Your task to perform on an android device: Go to privacy settings Image 0: 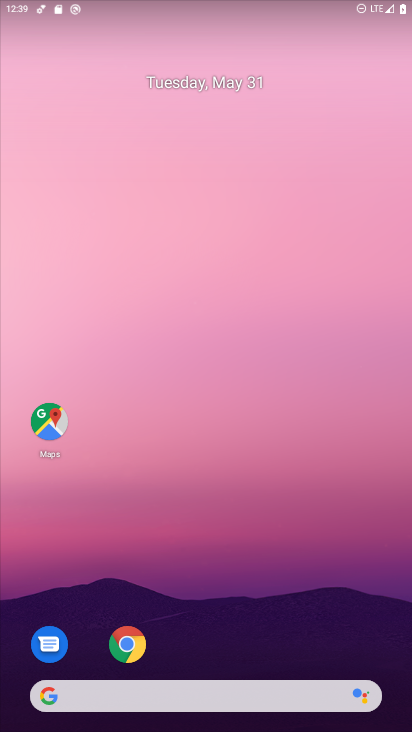
Step 0: drag from (161, 678) to (251, 155)
Your task to perform on an android device: Go to privacy settings Image 1: 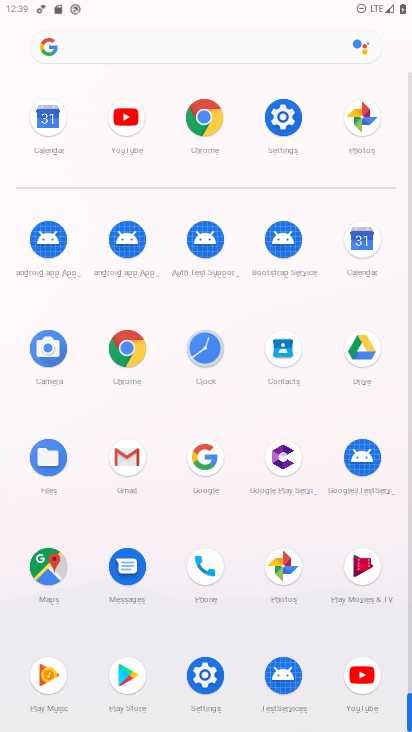
Step 1: click (270, 114)
Your task to perform on an android device: Go to privacy settings Image 2: 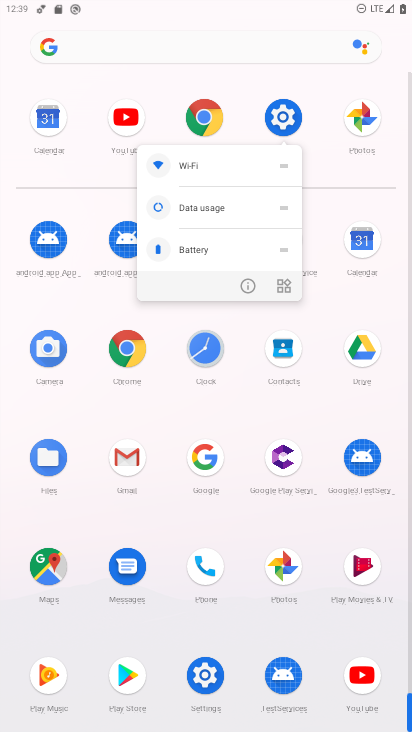
Step 2: click (242, 285)
Your task to perform on an android device: Go to privacy settings Image 3: 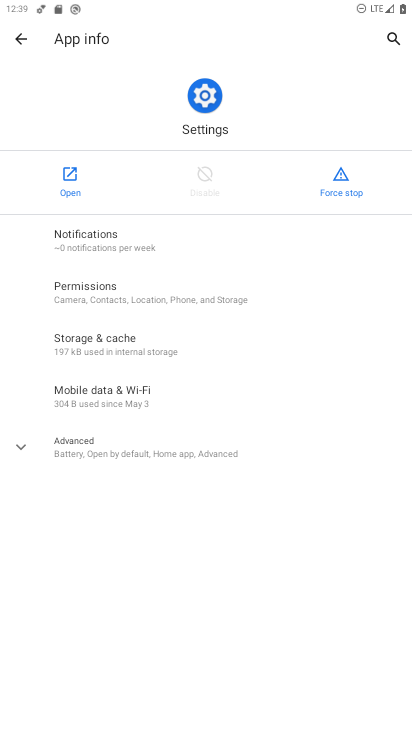
Step 3: click (50, 176)
Your task to perform on an android device: Go to privacy settings Image 4: 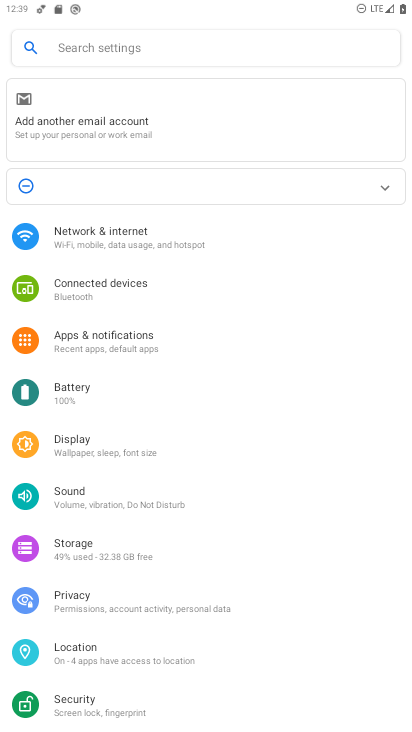
Step 4: click (107, 607)
Your task to perform on an android device: Go to privacy settings Image 5: 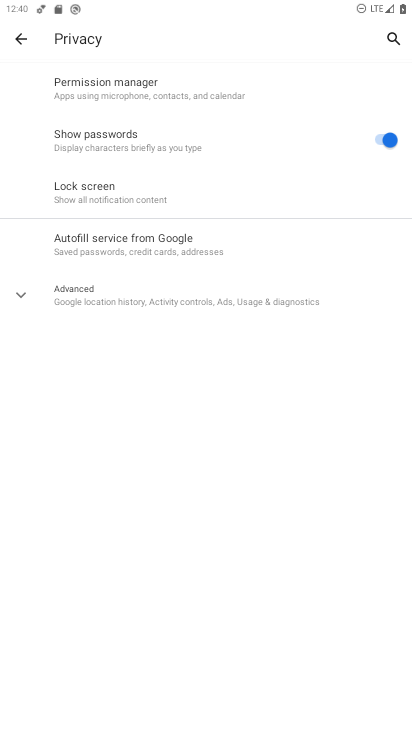
Step 5: task complete